Your task to perform on an android device: visit the assistant section in the google photos Image 0: 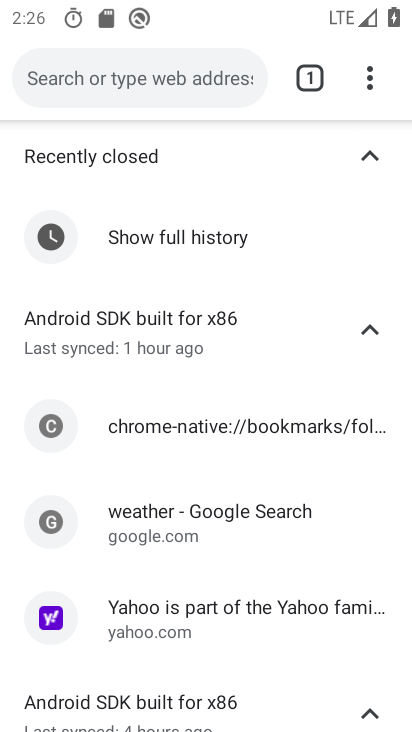
Step 0: press home button
Your task to perform on an android device: visit the assistant section in the google photos Image 1: 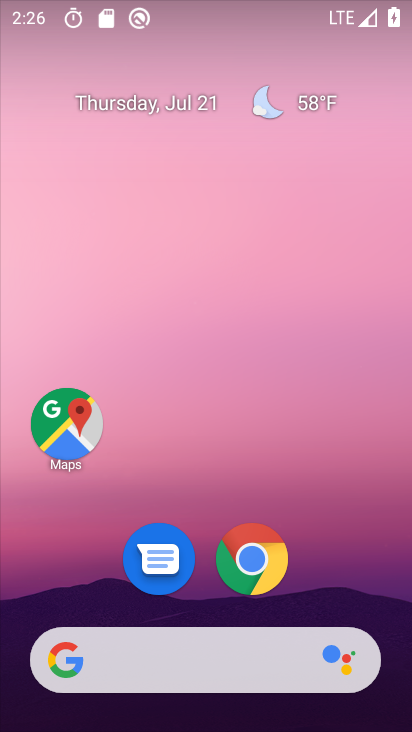
Step 1: drag from (360, 587) to (376, 121)
Your task to perform on an android device: visit the assistant section in the google photos Image 2: 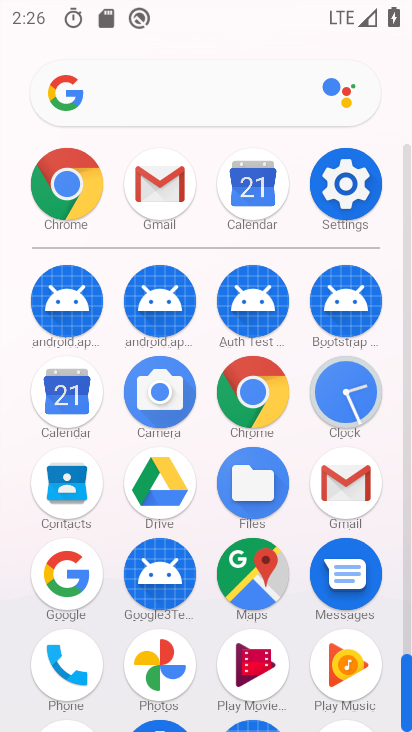
Step 2: click (171, 671)
Your task to perform on an android device: visit the assistant section in the google photos Image 3: 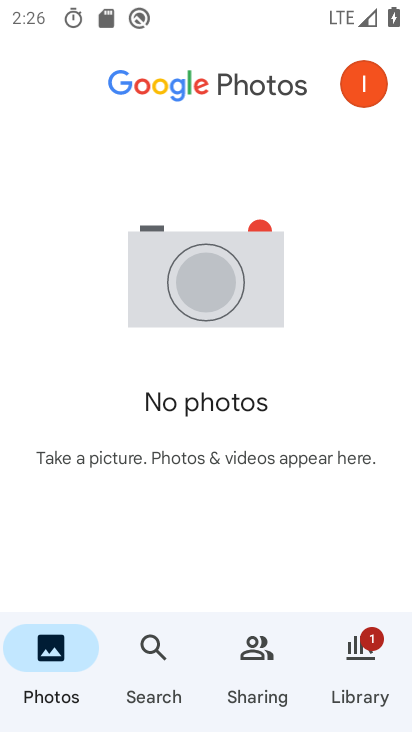
Step 3: click (364, 666)
Your task to perform on an android device: visit the assistant section in the google photos Image 4: 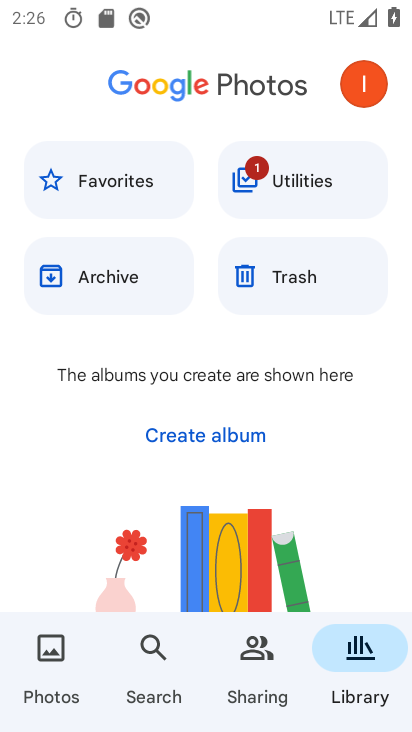
Step 4: task complete